Your task to perform on an android device: Search for sushi restaurants on Maps Image 0: 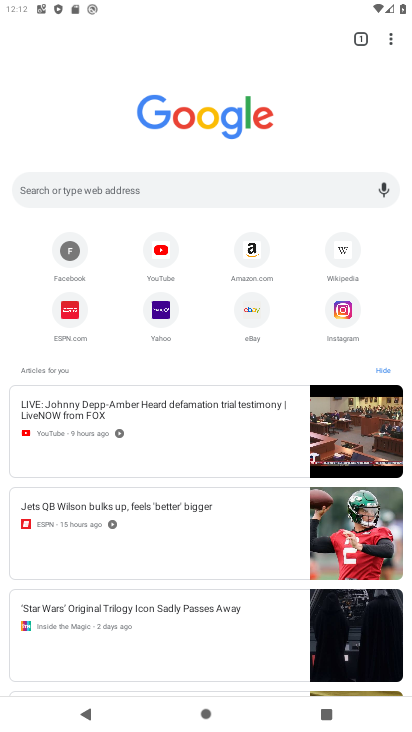
Step 0: press home button
Your task to perform on an android device: Search for sushi restaurants on Maps Image 1: 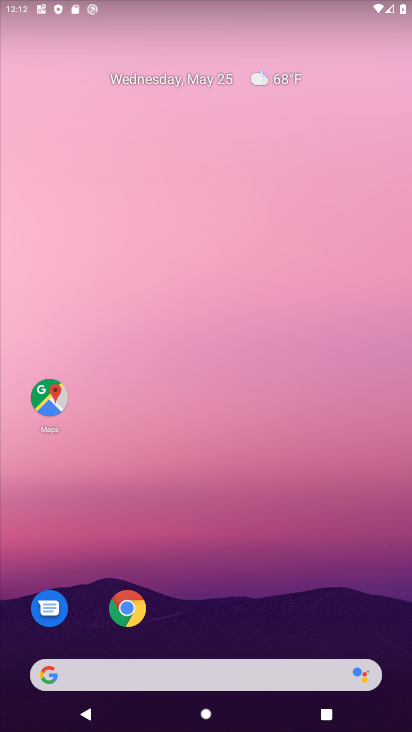
Step 1: click (54, 396)
Your task to perform on an android device: Search for sushi restaurants on Maps Image 2: 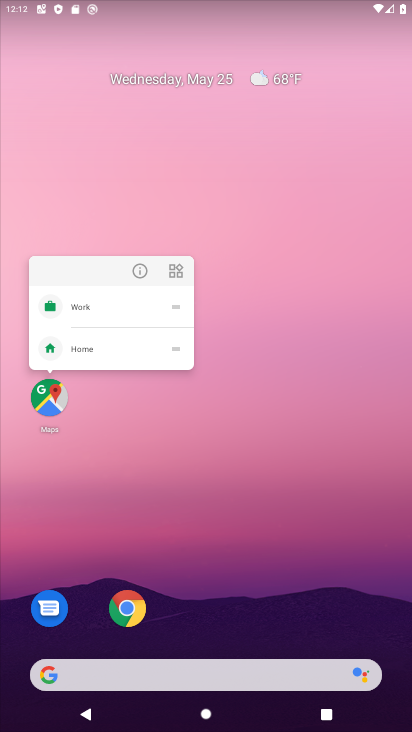
Step 2: click (50, 406)
Your task to perform on an android device: Search for sushi restaurants on Maps Image 3: 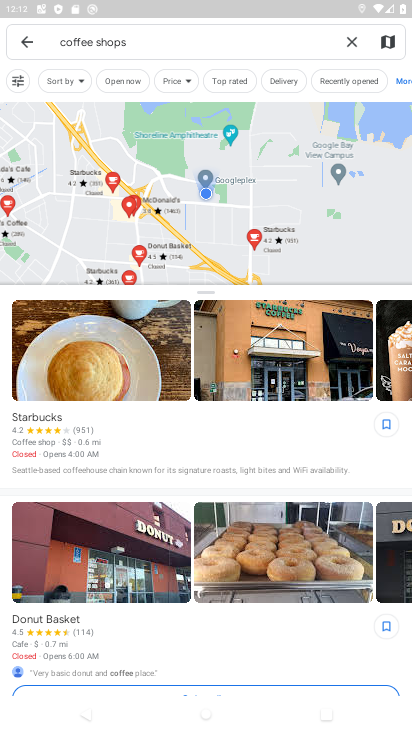
Step 3: click (179, 43)
Your task to perform on an android device: Search for sushi restaurants on Maps Image 4: 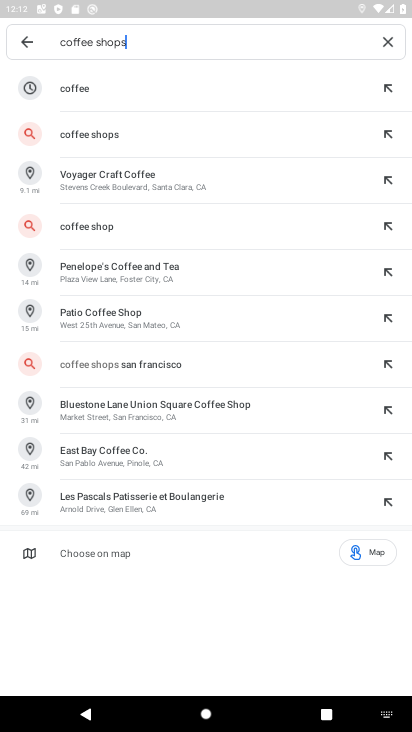
Step 4: click (394, 37)
Your task to perform on an android device: Search for sushi restaurants on Maps Image 5: 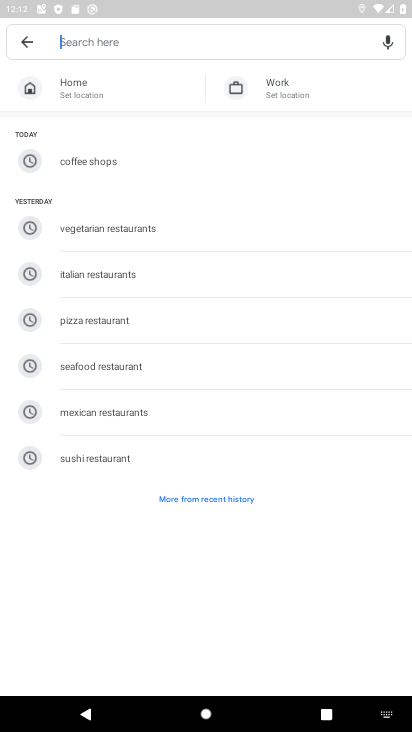
Step 5: click (136, 459)
Your task to perform on an android device: Search for sushi restaurants on Maps Image 6: 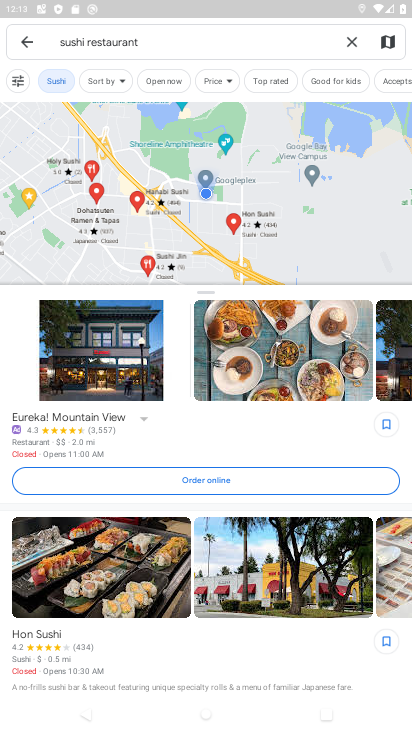
Step 6: task complete